Your task to perform on an android device: Clear all items from cart on walmart. Image 0: 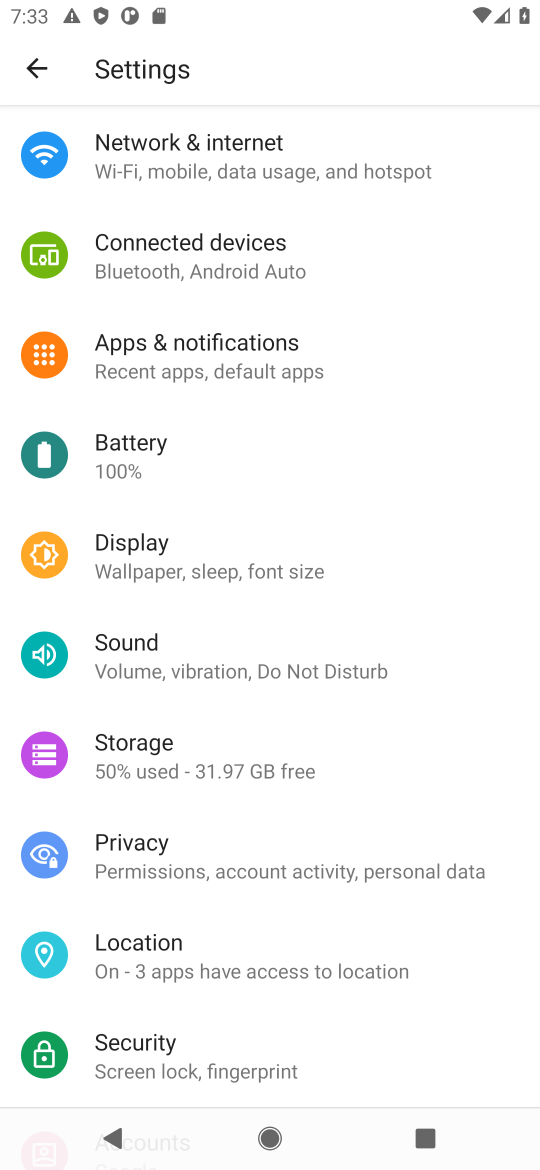
Step 0: press home button
Your task to perform on an android device: Clear all items from cart on walmart. Image 1: 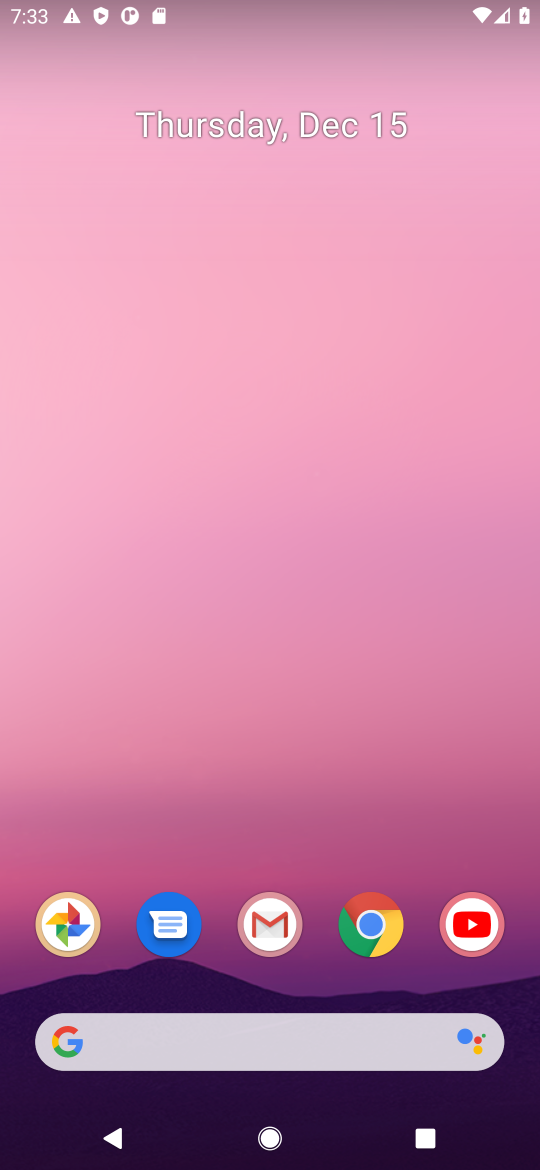
Step 1: click (356, 913)
Your task to perform on an android device: Clear all items from cart on walmart. Image 2: 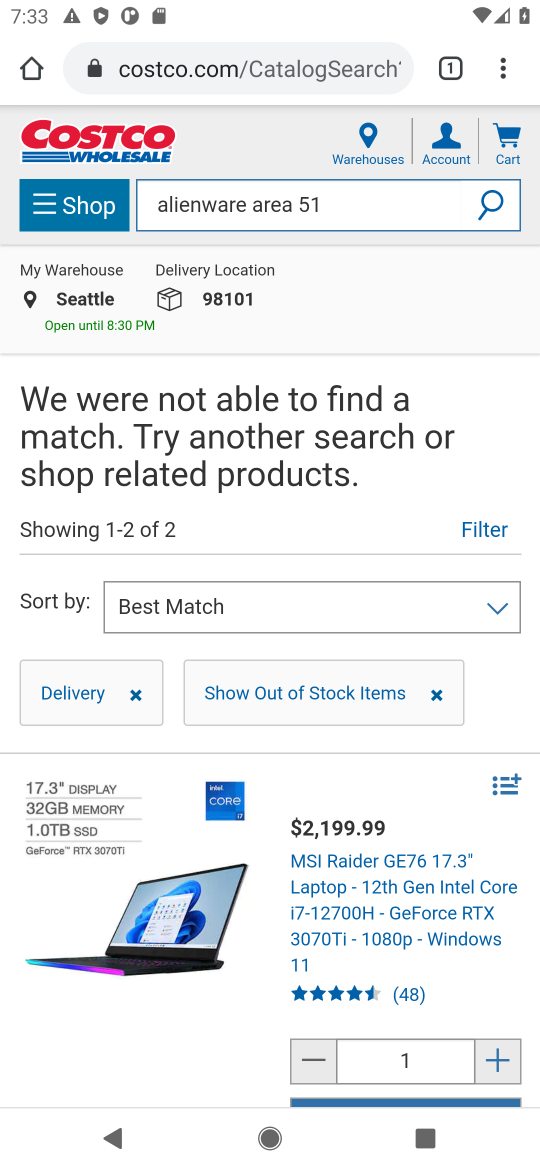
Step 2: click (322, 59)
Your task to perform on an android device: Clear all items from cart on walmart. Image 3: 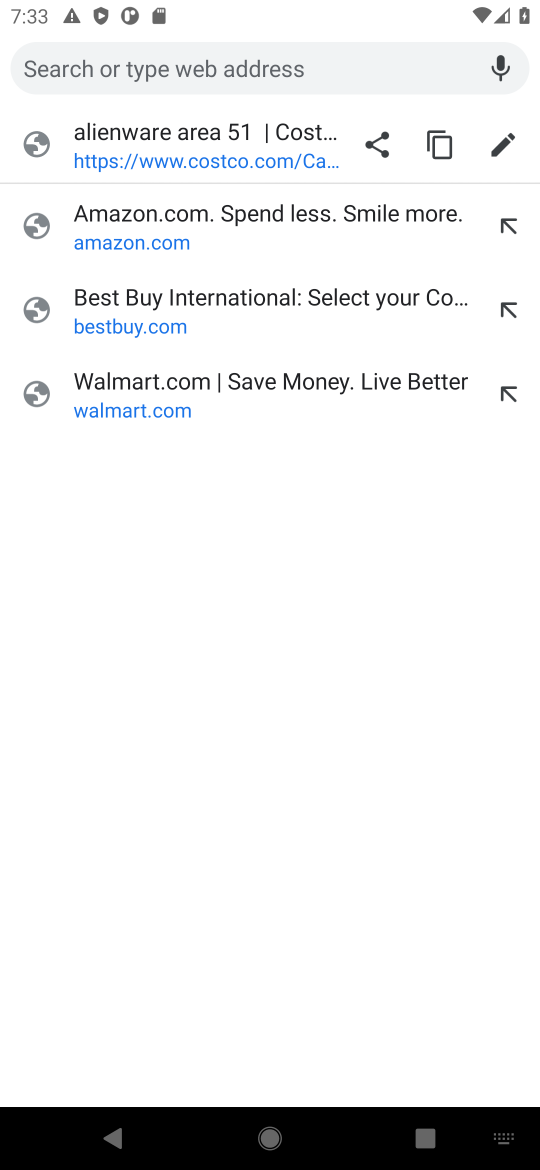
Step 3: click (121, 422)
Your task to perform on an android device: Clear all items from cart on walmart. Image 4: 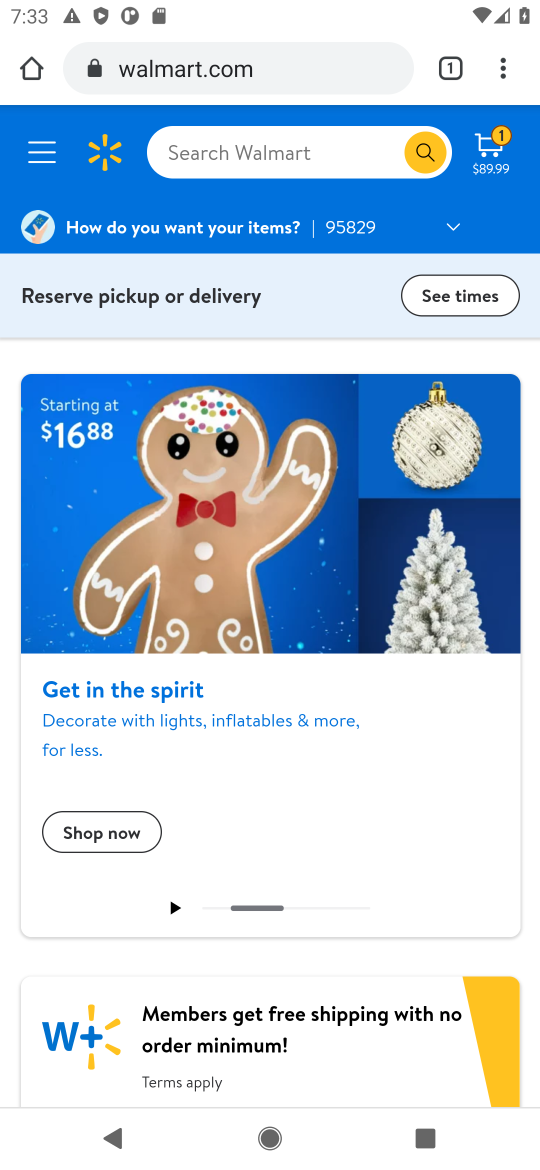
Step 4: click (496, 125)
Your task to perform on an android device: Clear all items from cart on walmart. Image 5: 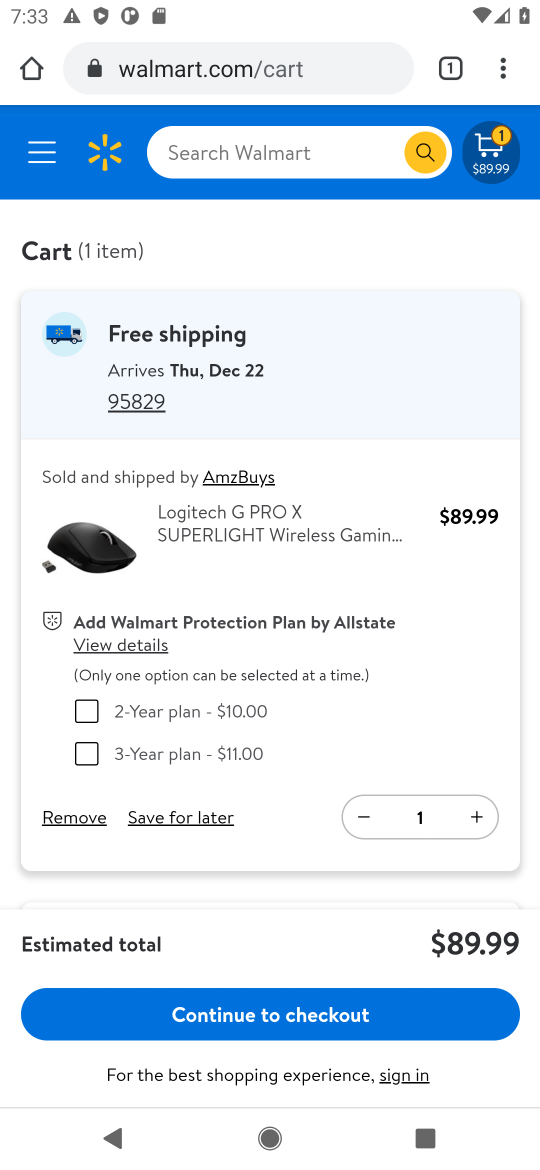
Step 5: click (89, 825)
Your task to perform on an android device: Clear all items from cart on walmart. Image 6: 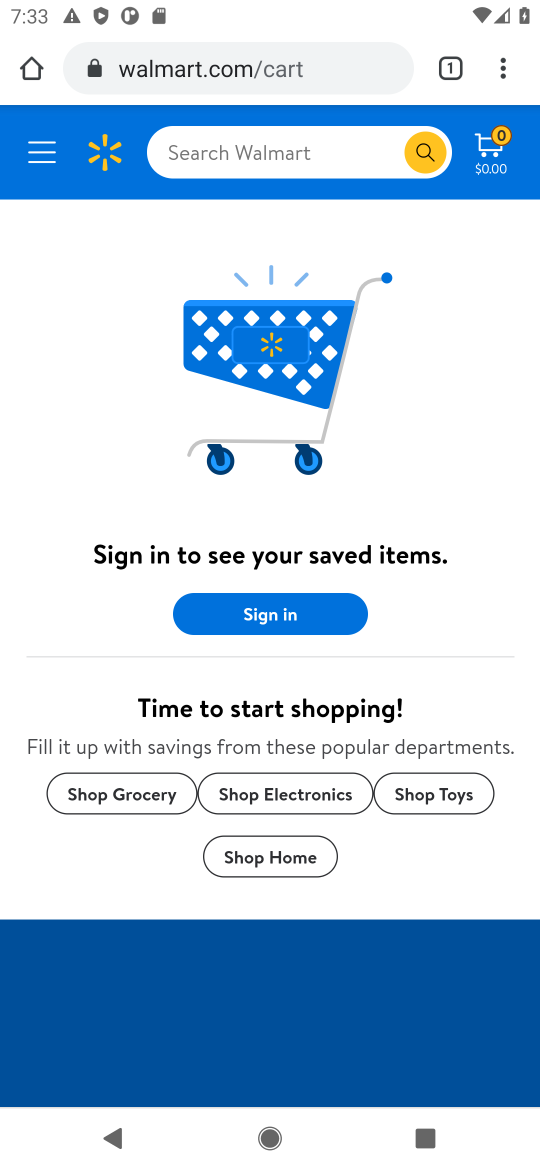
Step 6: task complete